Your task to perform on an android device: Is it going to rain this weekend? Image 0: 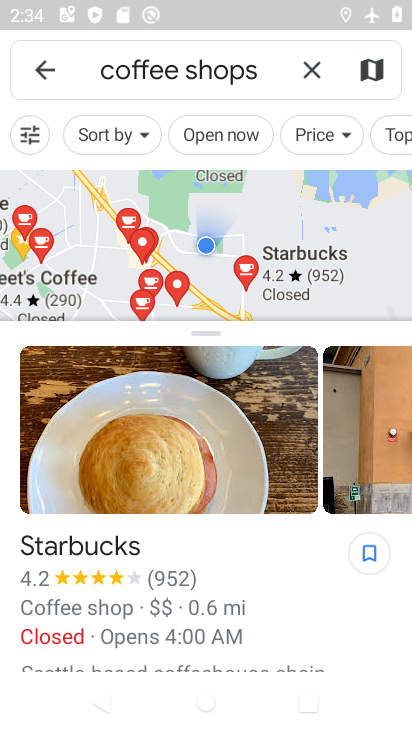
Step 0: press home button
Your task to perform on an android device: Is it going to rain this weekend? Image 1: 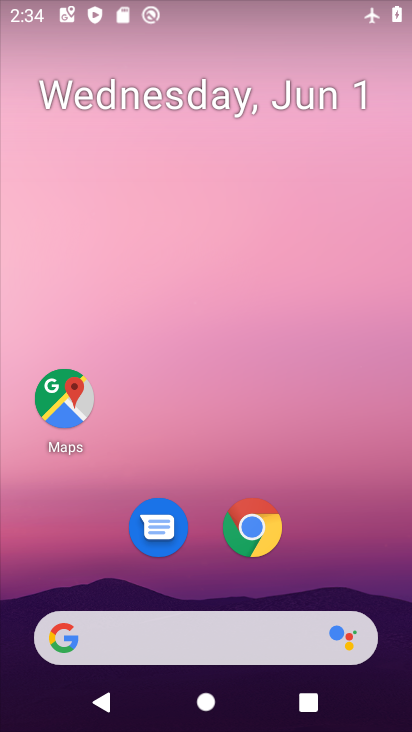
Step 1: drag from (338, 569) to (266, 121)
Your task to perform on an android device: Is it going to rain this weekend? Image 2: 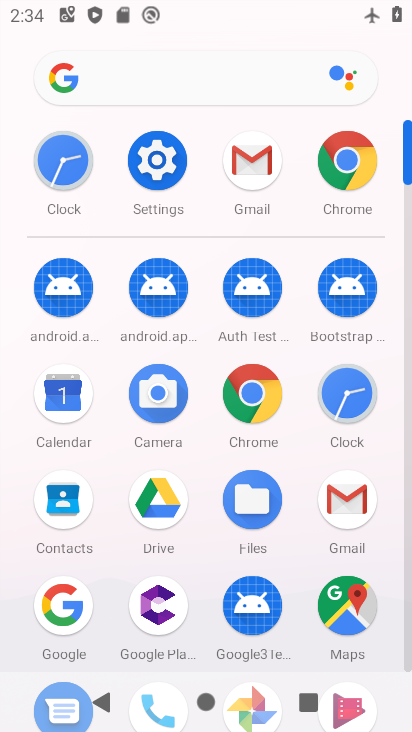
Step 2: click (58, 603)
Your task to perform on an android device: Is it going to rain this weekend? Image 3: 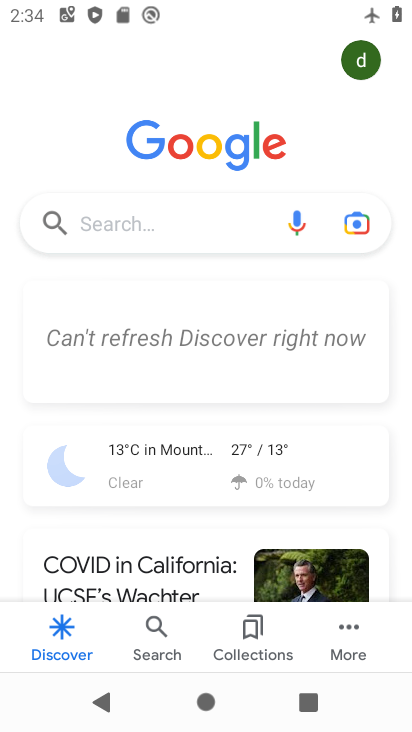
Step 3: click (157, 215)
Your task to perform on an android device: Is it going to rain this weekend? Image 4: 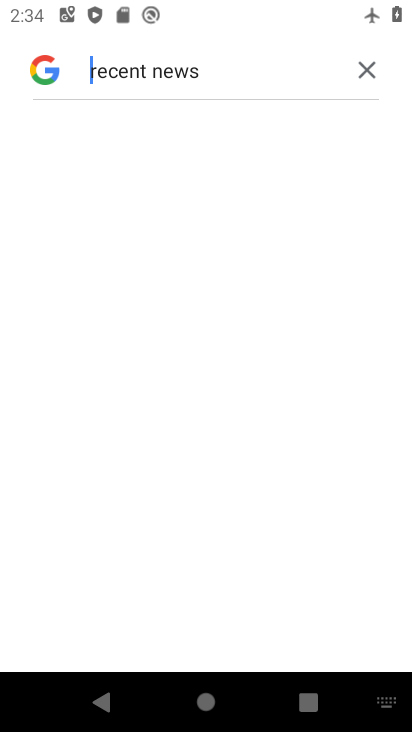
Step 4: click (367, 73)
Your task to perform on an android device: Is it going to rain this weekend? Image 5: 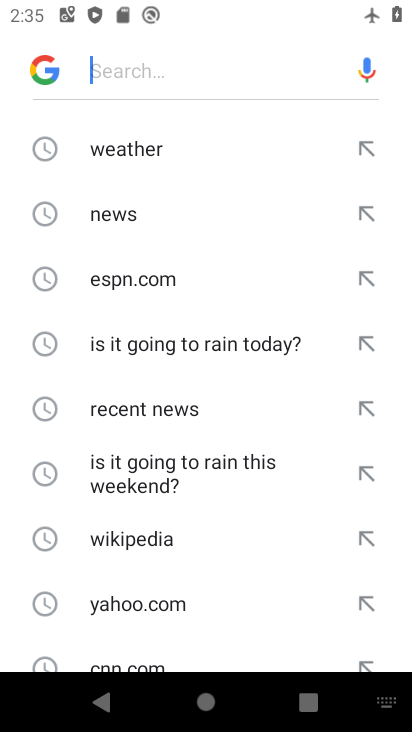
Step 5: type "Is it going to rain this weekend?"
Your task to perform on an android device: Is it going to rain this weekend? Image 6: 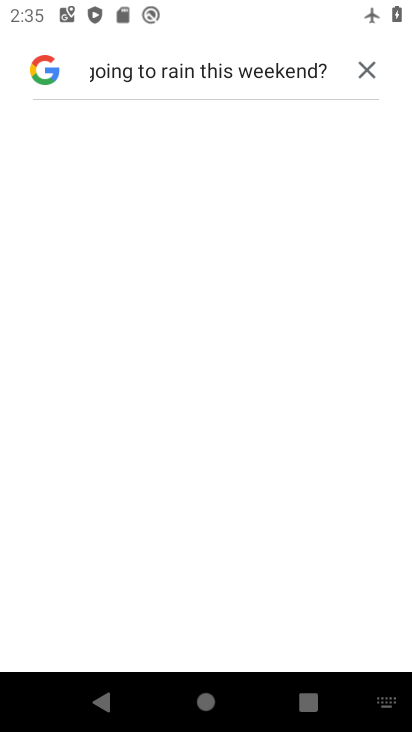
Step 6: task complete